Your task to perform on an android device: Go to Android settings Image 0: 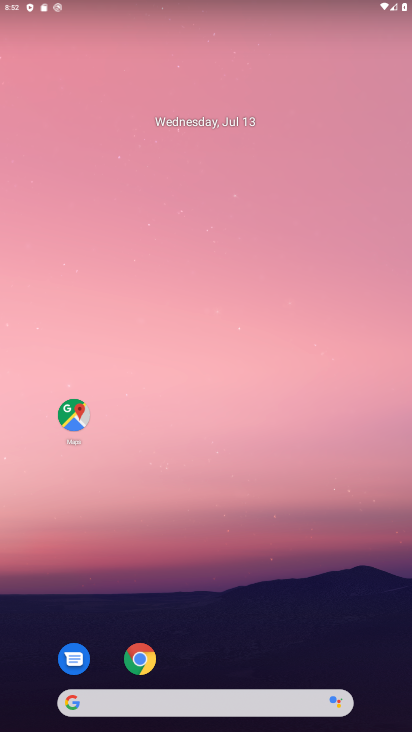
Step 0: drag from (355, 683) to (282, 151)
Your task to perform on an android device: Go to Android settings Image 1: 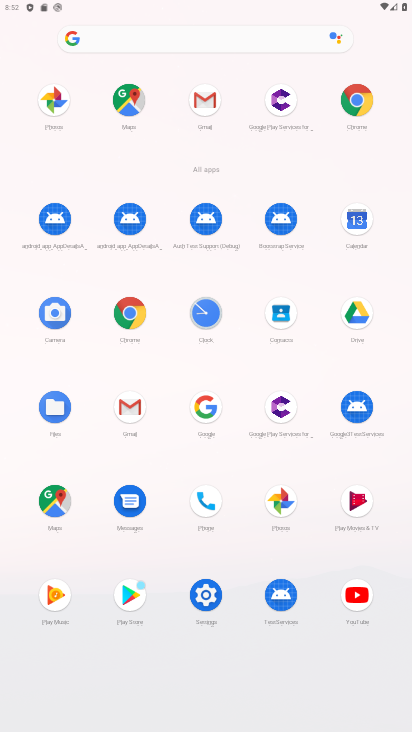
Step 1: click (206, 592)
Your task to perform on an android device: Go to Android settings Image 2: 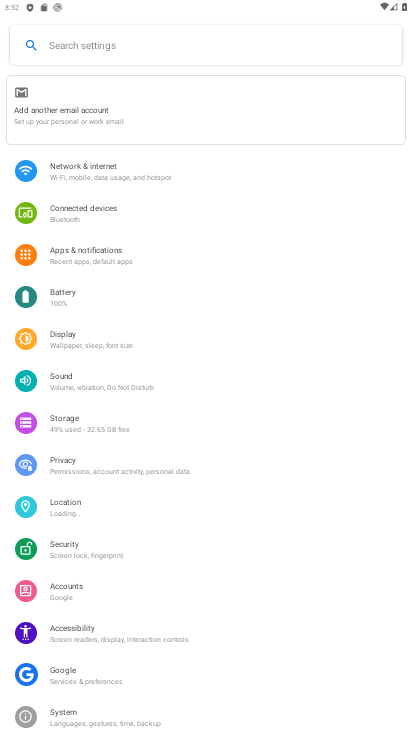
Step 2: drag from (199, 675) to (189, 290)
Your task to perform on an android device: Go to Android settings Image 3: 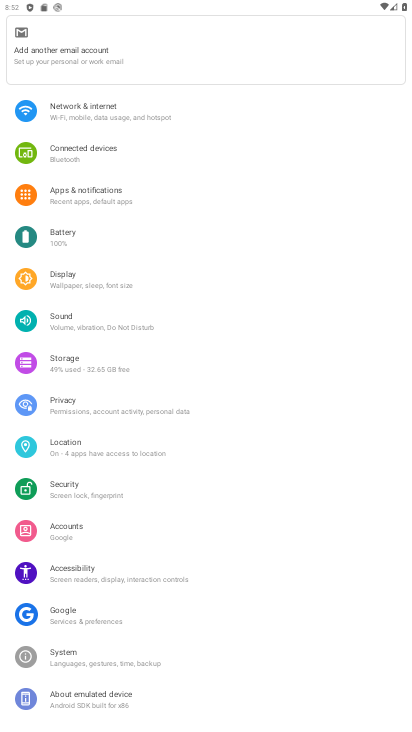
Step 3: click (90, 687)
Your task to perform on an android device: Go to Android settings Image 4: 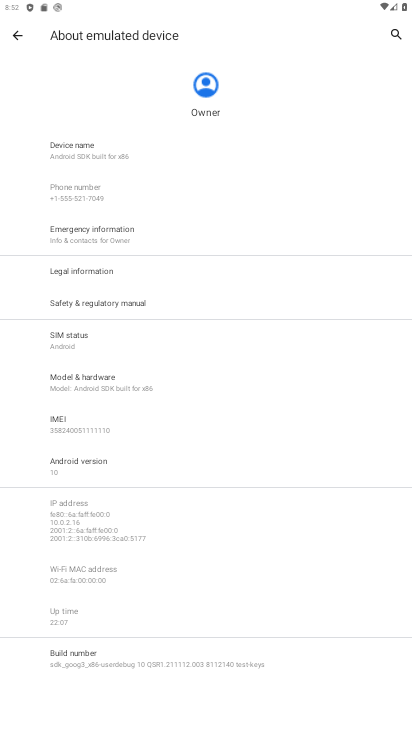
Step 4: task complete